Your task to perform on an android device: Check the weather Image 0: 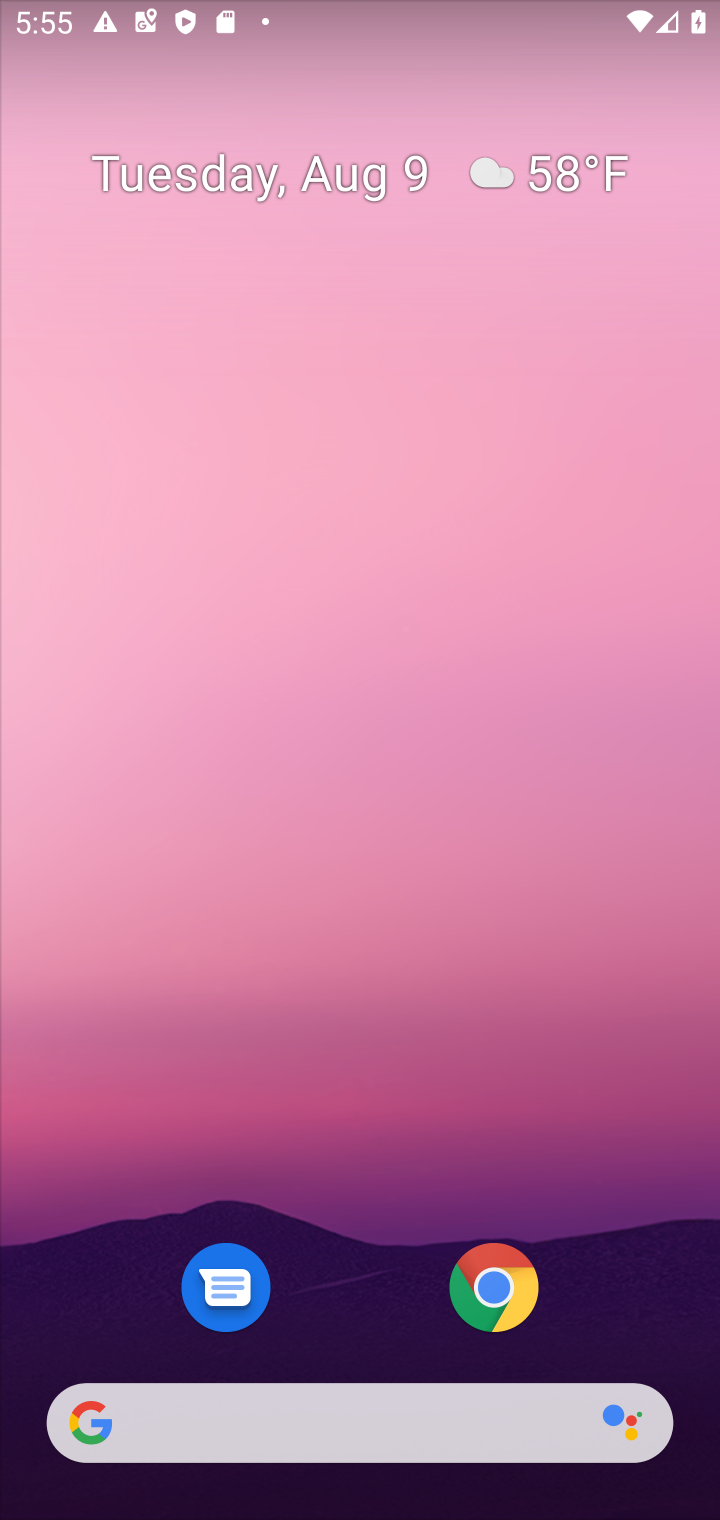
Step 0: click (0, 1448)
Your task to perform on an android device: Check the weather Image 1: 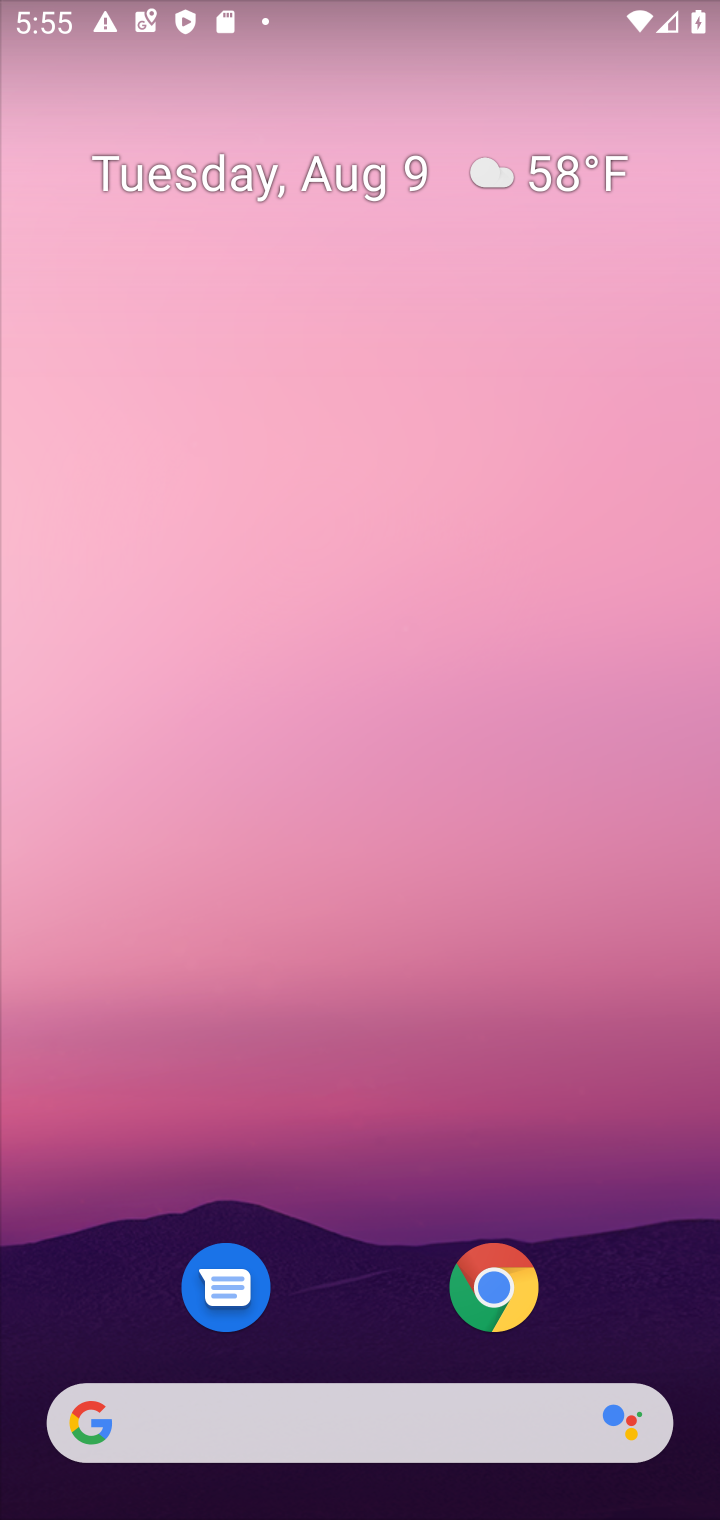
Step 1: click (386, 1433)
Your task to perform on an android device: Check the weather Image 2: 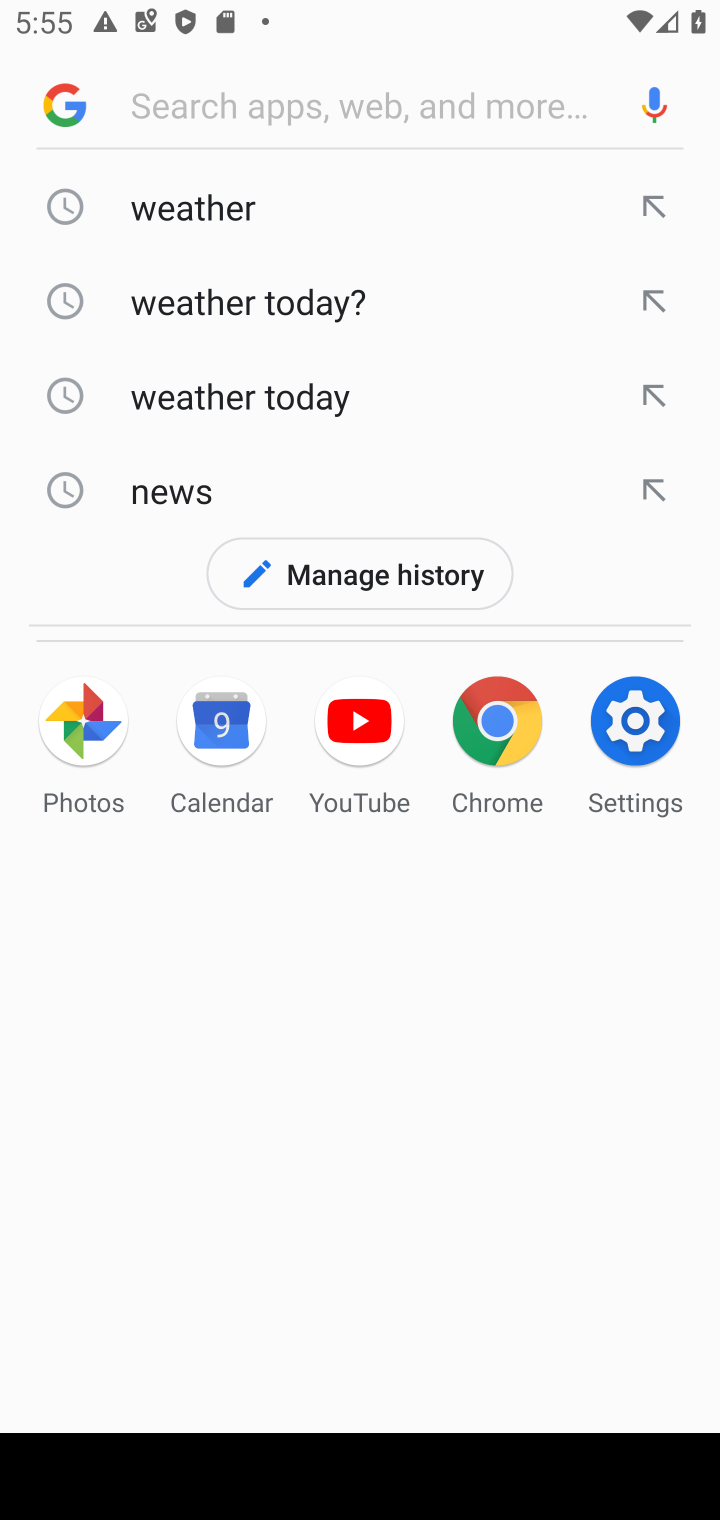
Step 2: type " Check the weather"
Your task to perform on an android device: Check the weather Image 3: 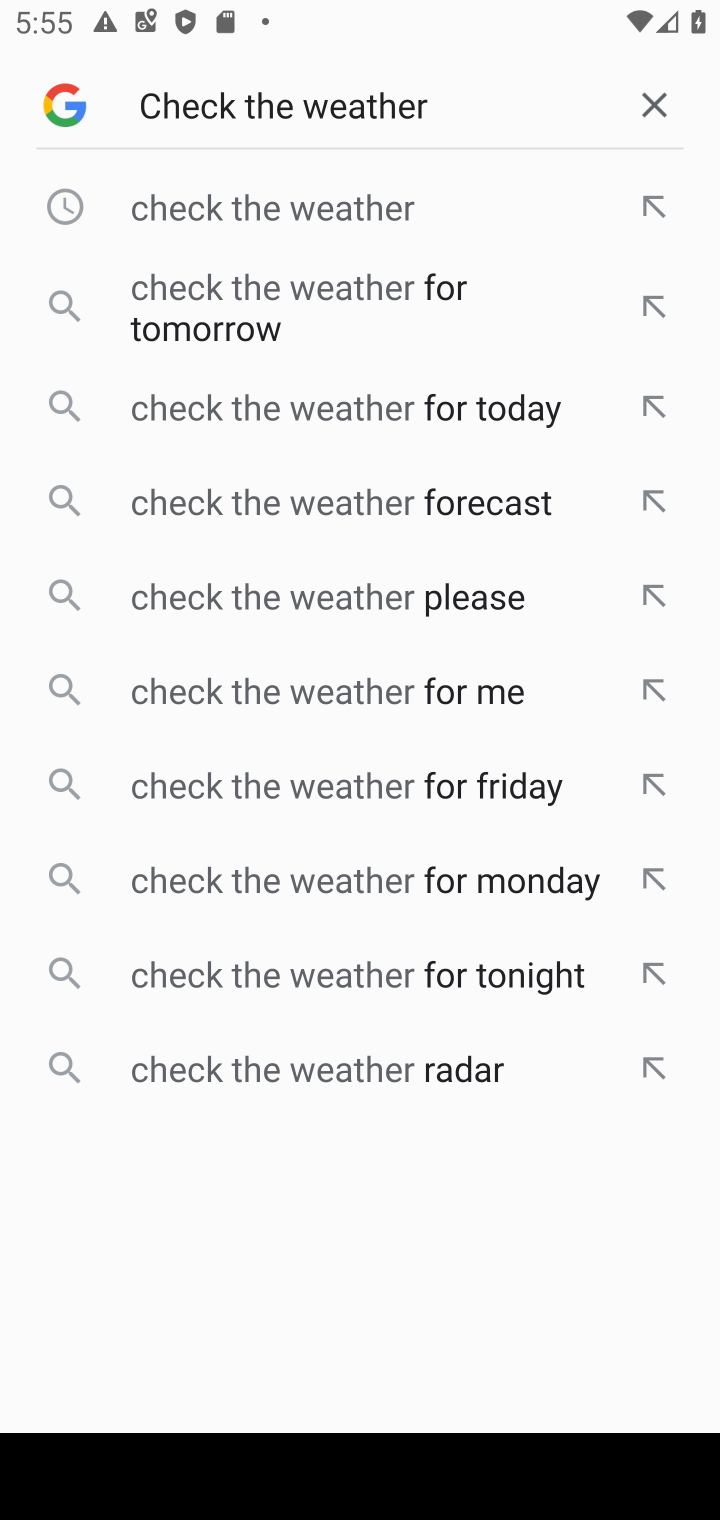
Step 3: press enter
Your task to perform on an android device: Check the weather Image 4: 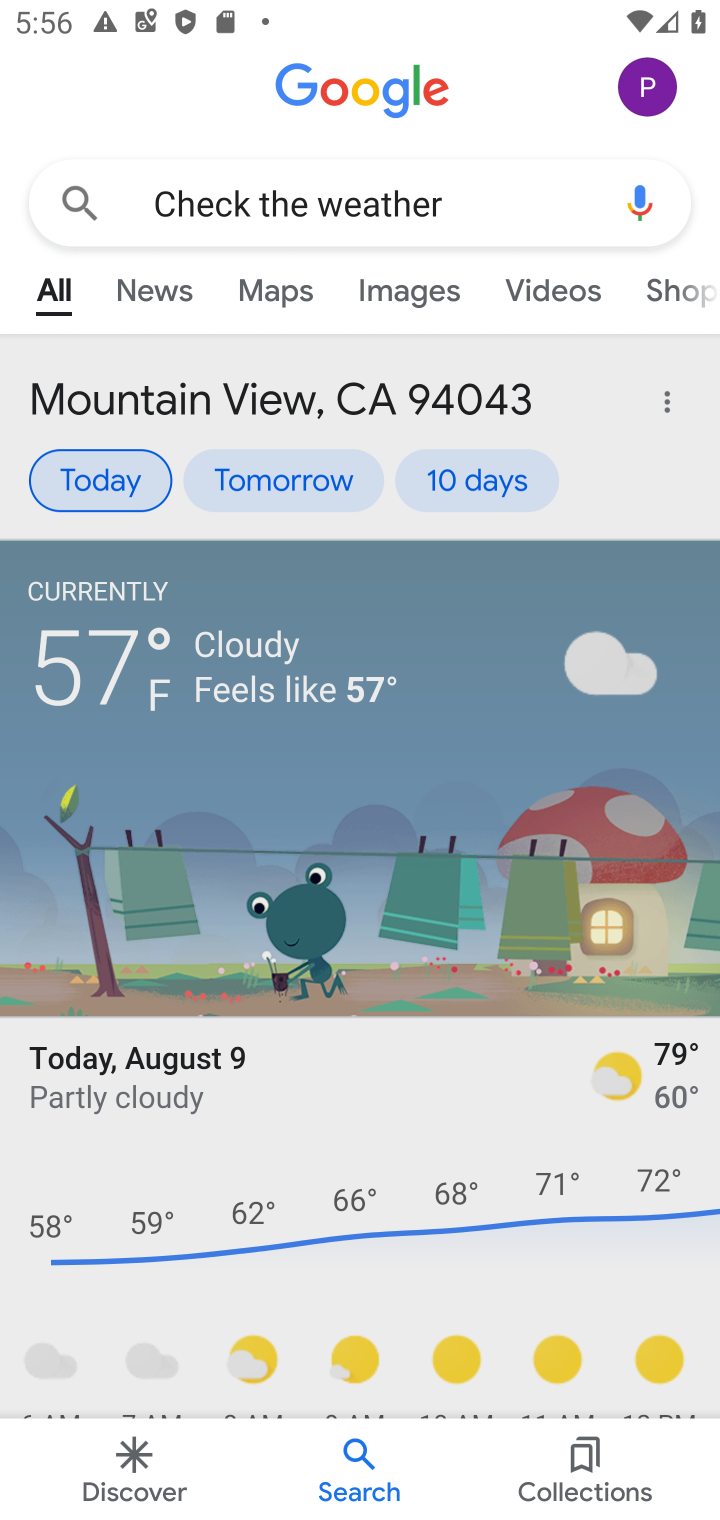
Step 4: task complete